Your task to perform on an android device: Open privacy settings Image 0: 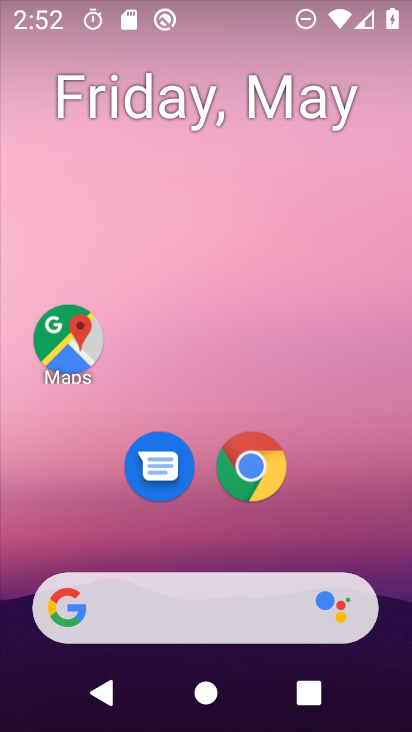
Step 0: drag from (352, 343) to (364, 6)
Your task to perform on an android device: Open privacy settings Image 1: 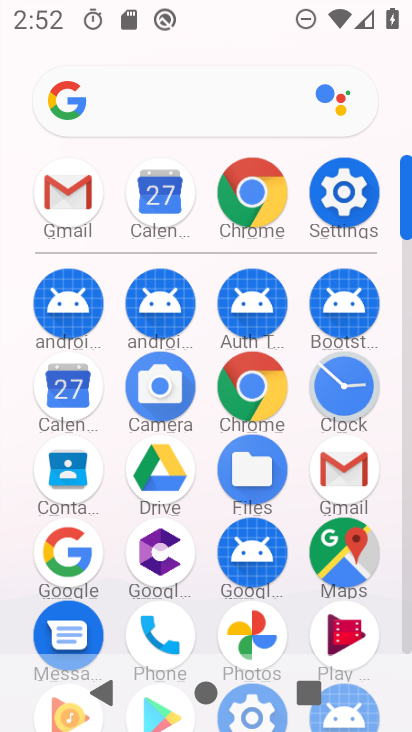
Step 1: click (351, 199)
Your task to perform on an android device: Open privacy settings Image 2: 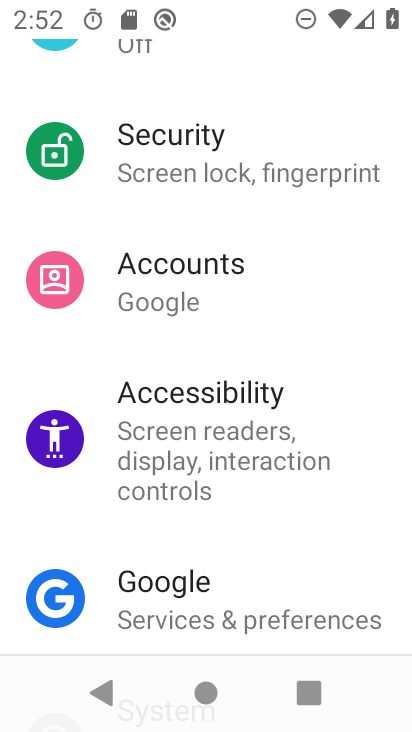
Step 2: drag from (285, 245) to (215, 685)
Your task to perform on an android device: Open privacy settings Image 3: 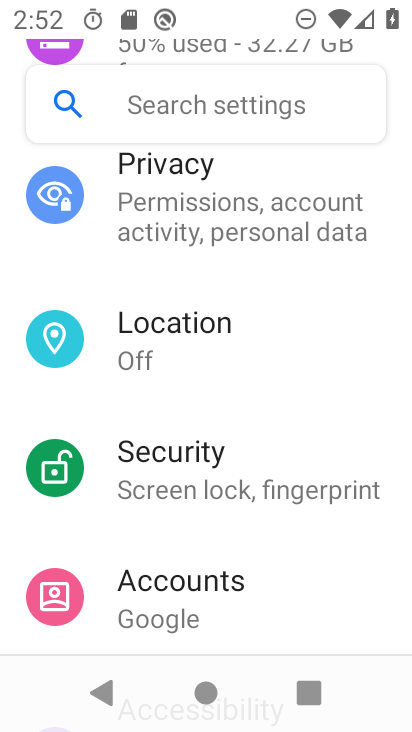
Step 3: drag from (310, 240) to (271, 665)
Your task to perform on an android device: Open privacy settings Image 4: 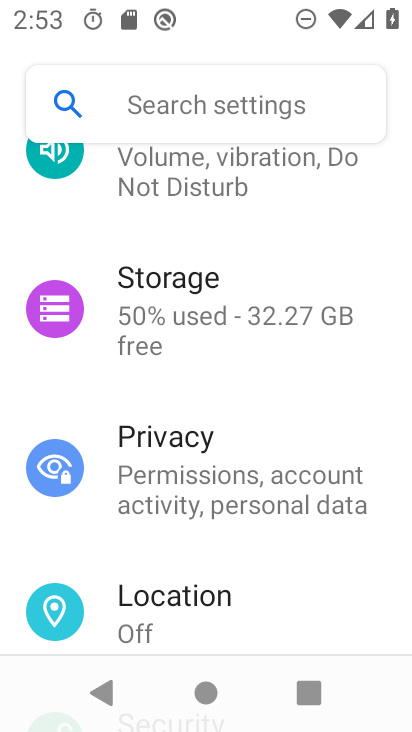
Step 4: click (220, 464)
Your task to perform on an android device: Open privacy settings Image 5: 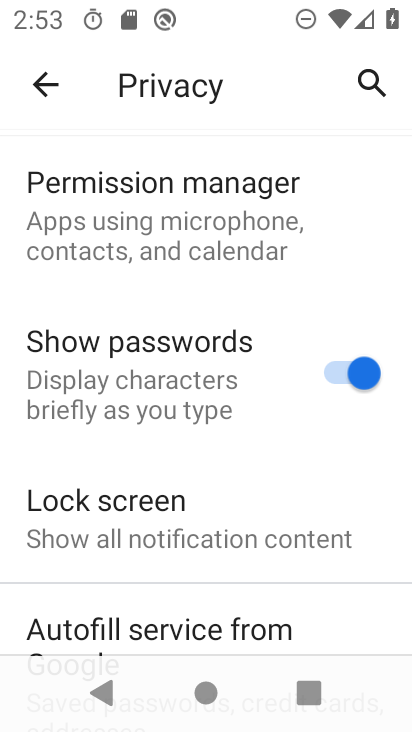
Step 5: task complete